Your task to perform on an android device: turn on wifi Image 0: 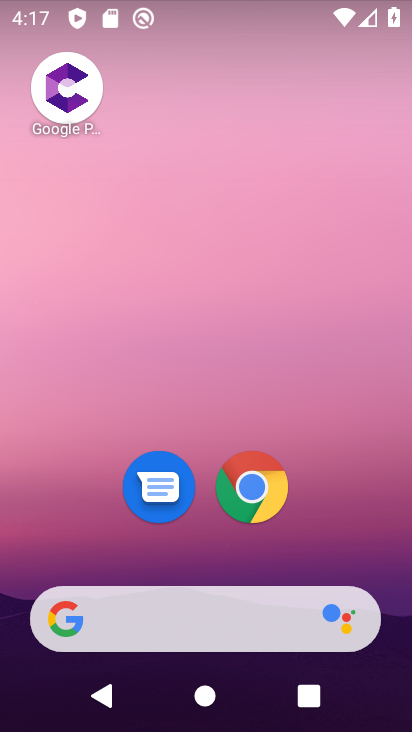
Step 0: drag from (387, 560) to (339, 4)
Your task to perform on an android device: turn on wifi Image 1: 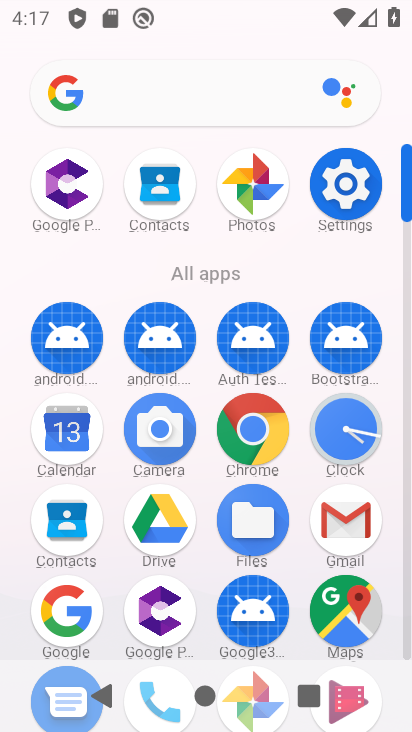
Step 1: click (347, 213)
Your task to perform on an android device: turn on wifi Image 2: 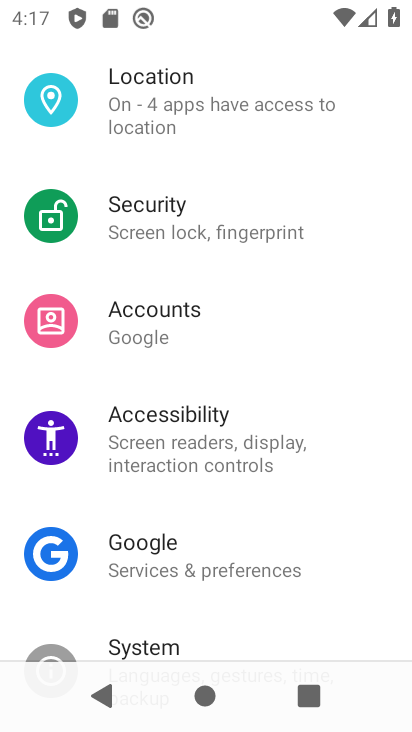
Step 2: drag from (195, 134) to (205, 533)
Your task to perform on an android device: turn on wifi Image 3: 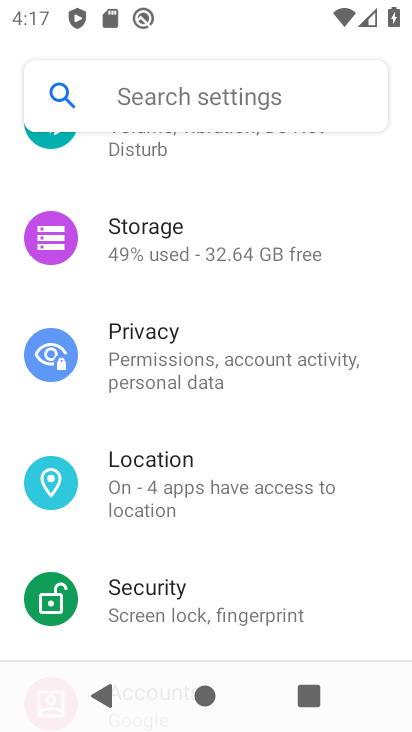
Step 3: drag from (245, 235) to (241, 631)
Your task to perform on an android device: turn on wifi Image 4: 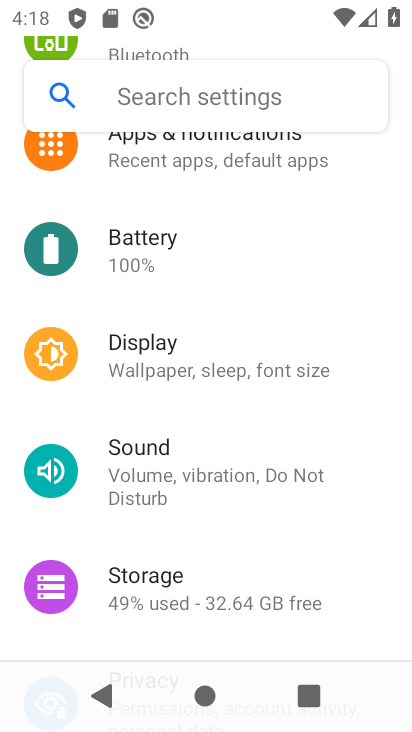
Step 4: drag from (286, 264) to (272, 560)
Your task to perform on an android device: turn on wifi Image 5: 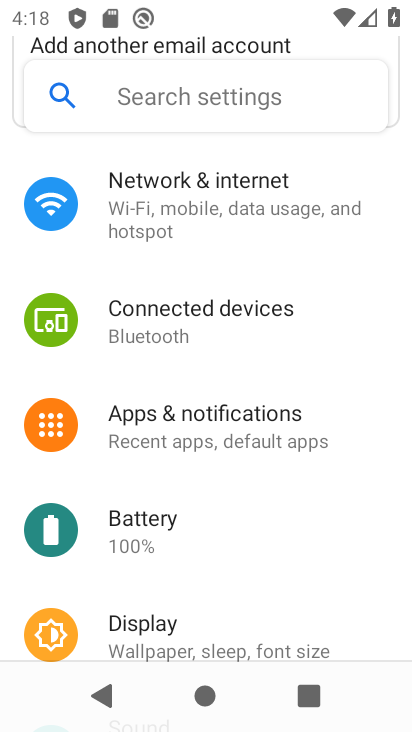
Step 5: click (245, 182)
Your task to perform on an android device: turn on wifi Image 6: 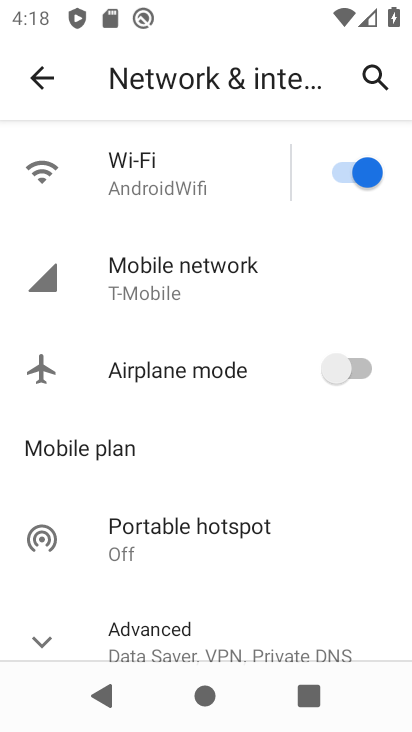
Step 6: task complete